Your task to perform on an android device: open chrome and create a bookmark for the current page Image 0: 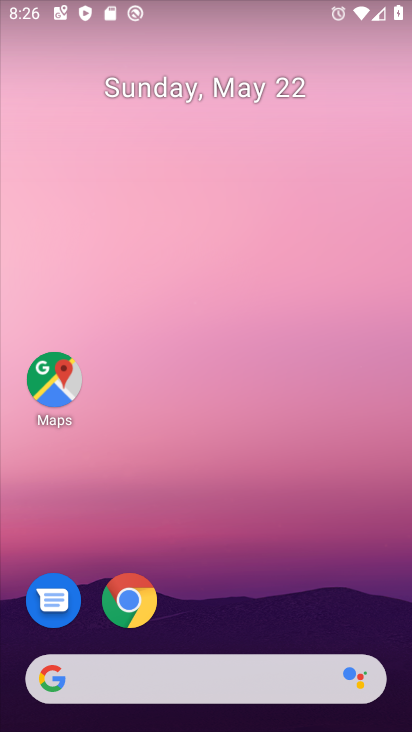
Step 0: press home button
Your task to perform on an android device: open chrome and create a bookmark for the current page Image 1: 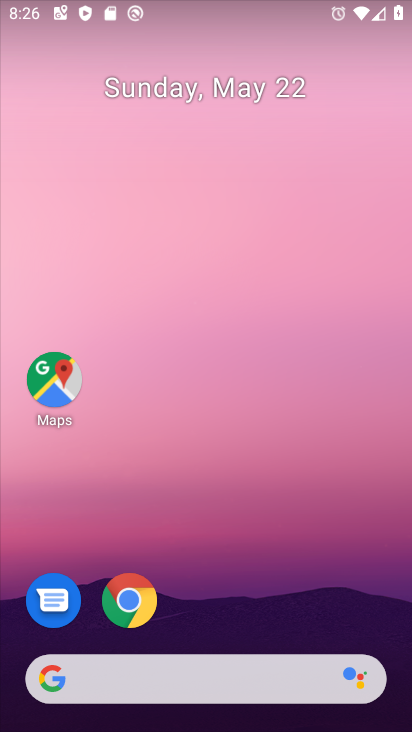
Step 1: drag from (297, 625) to (343, 243)
Your task to perform on an android device: open chrome and create a bookmark for the current page Image 2: 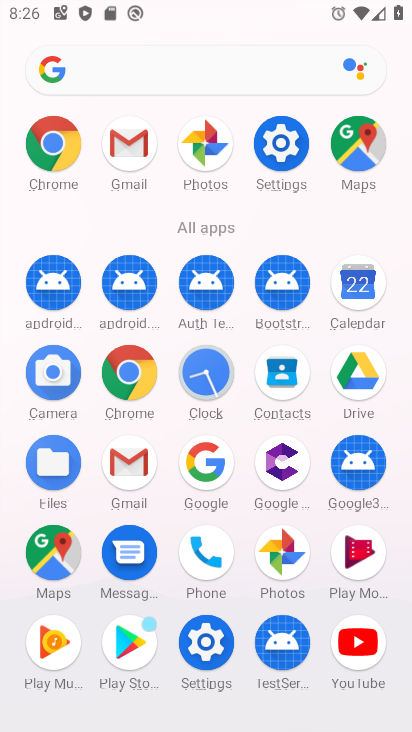
Step 2: click (66, 164)
Your task to perform on an android device: open chrome and create a bookmark for the current page Image 3: 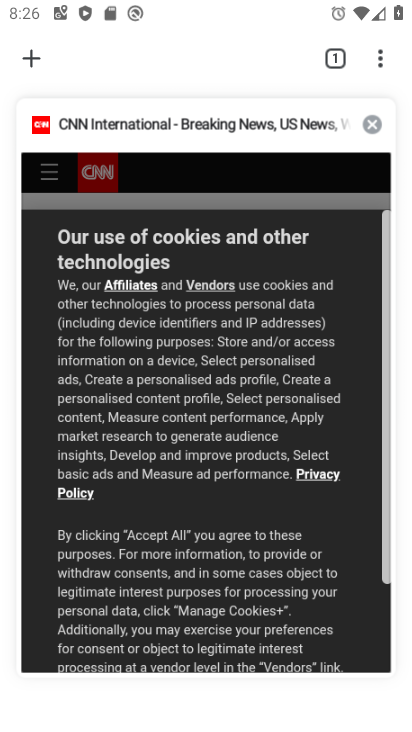
Step 3: click (34, 60)
Your task to perform on an android device: open chrome and create a bookmark for the current page Image 4: 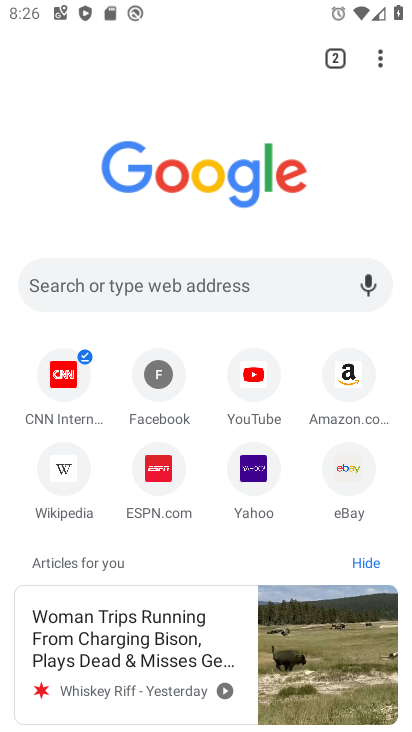
Step 4: click (380, 55)
Your task to perform on an android device: open chrome and create a bookmark for the current page Image 5: 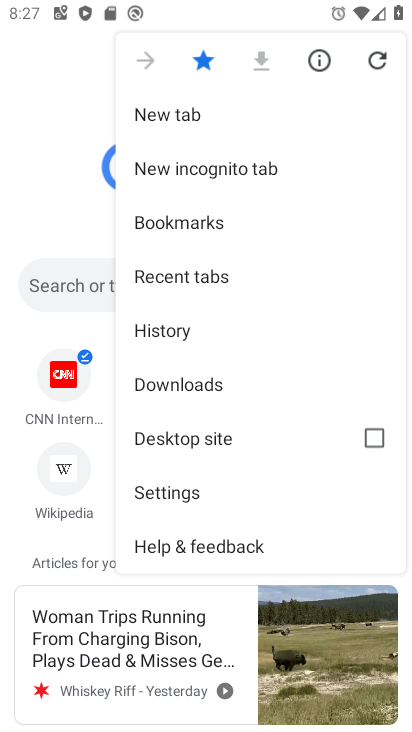
Step 5: task complete